Your task to perform on an android device: Go to privacy settings Image 0: 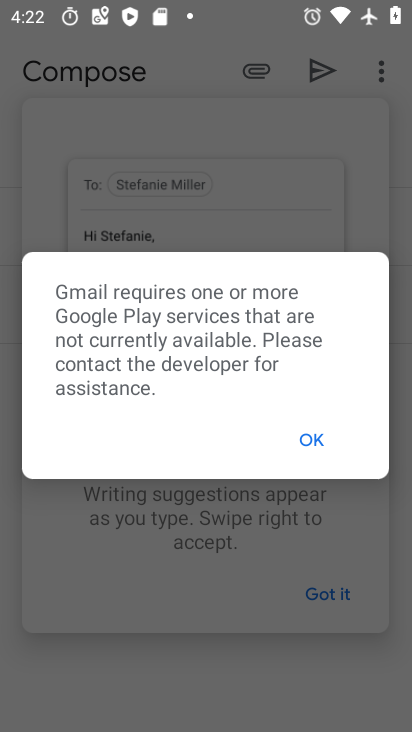
Step 0: press home button
Your task to perform on an android device: Go to privacy settings Image 1: 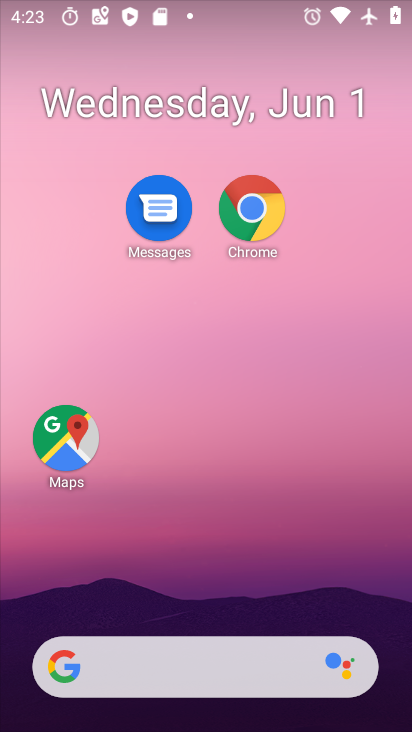
Step 1: drag from (230, 622) to (258, 166)
Your task to perform on an android device: Go to privacy settings Image 2: 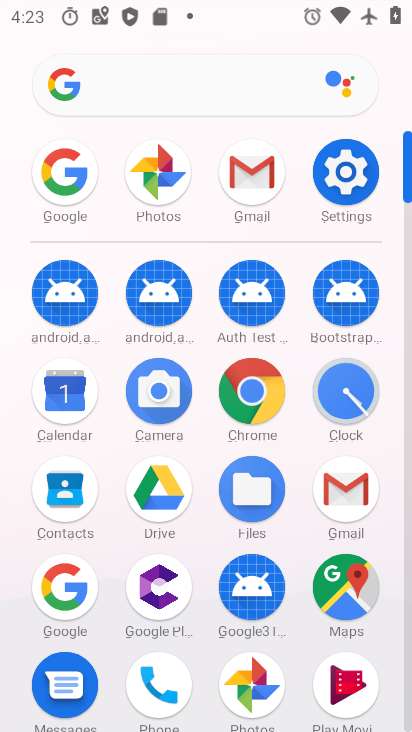
Step 2: click (319, 169)
Your task to perform on an android device: Go to privacy settings Image 3: 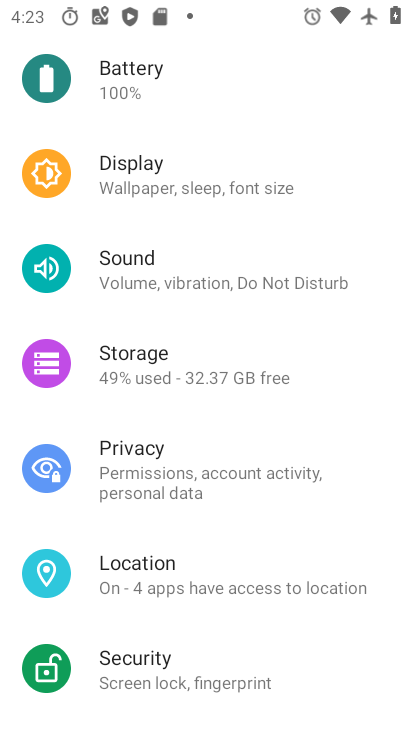
Step 3: click (159, 474)
Your task to perform on an android device: Go to privacy settings Image 4: 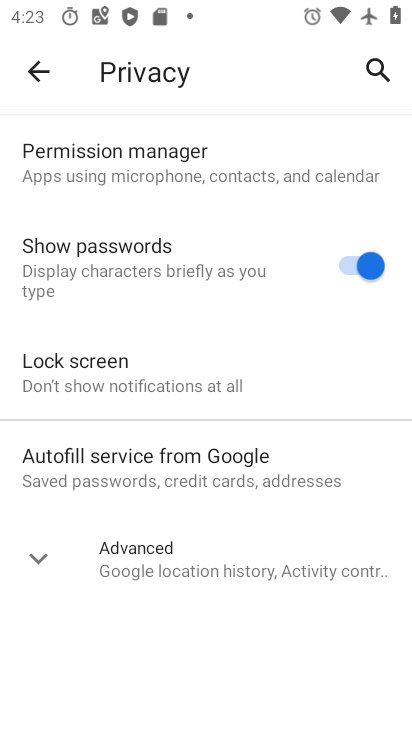
Step 4: task complete